Your task to perform on an android device: turn on the 12-hour format for clock Image 0: 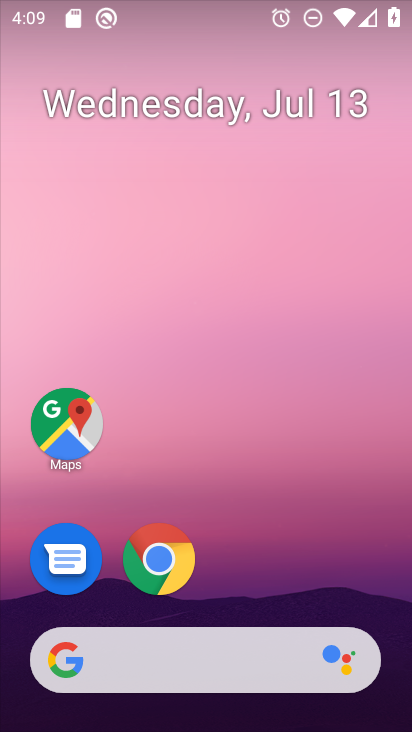
Step 0: drag from (335, 575) to (336, 106)
Your task to perform on an android device: turn on the 12-hour format for clock Image 1: 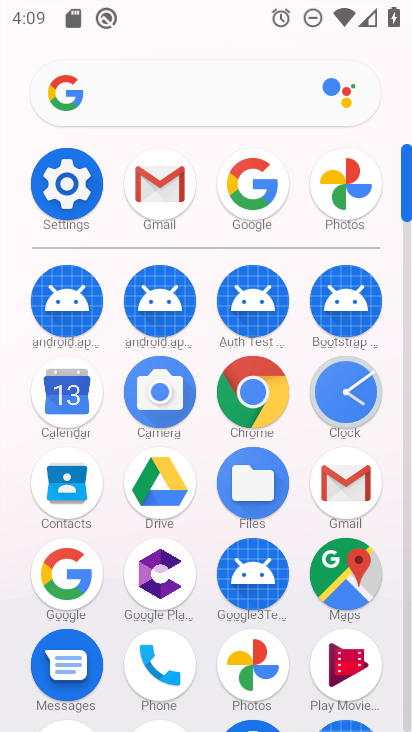
Step 1: click (351, 383)
Your task to perform on an android device: turn on the 12-hour format for clock Image 2: 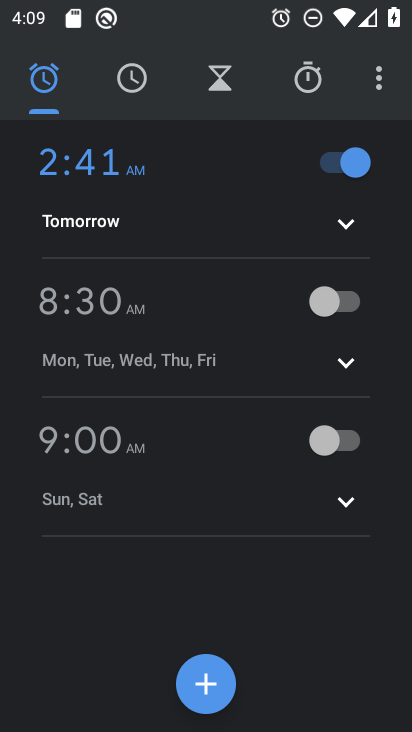
Step 2: click (382, 91)
Your task to perform on an android device: turn on the 12-hour format for clock Image 3: 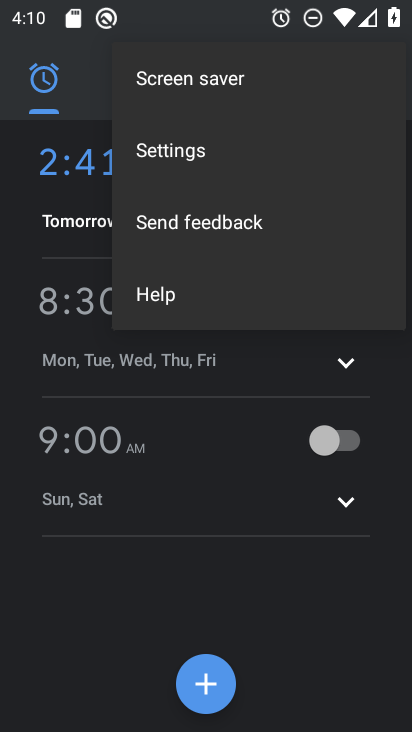
Step 3: click (284, 155)
Your task to perform on an android device: turn on the 12-hour format for clock Image 4: 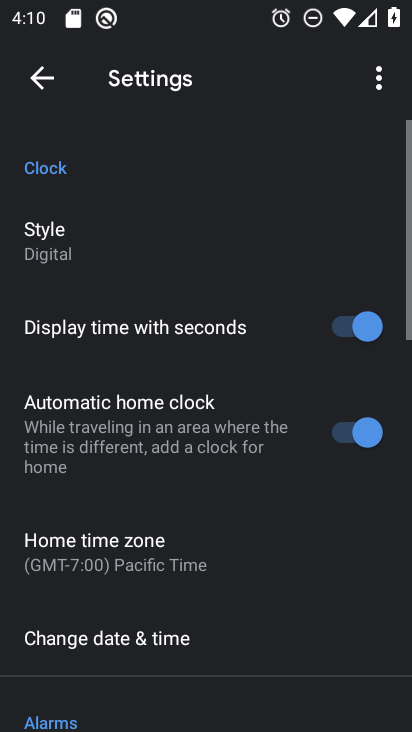
Step 4: drag from (285, 393) to (281, 303)
Your task to perform on an android device: turn on the 12-hour format for clock Image 5: 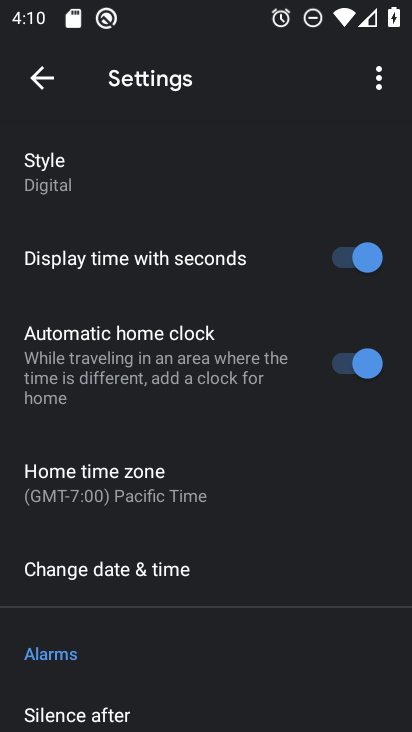
Step 5: drag from (268, 401) to (269, 325)
Your task to perform on an android device: turn on the 12-hour format for clock Image 6: 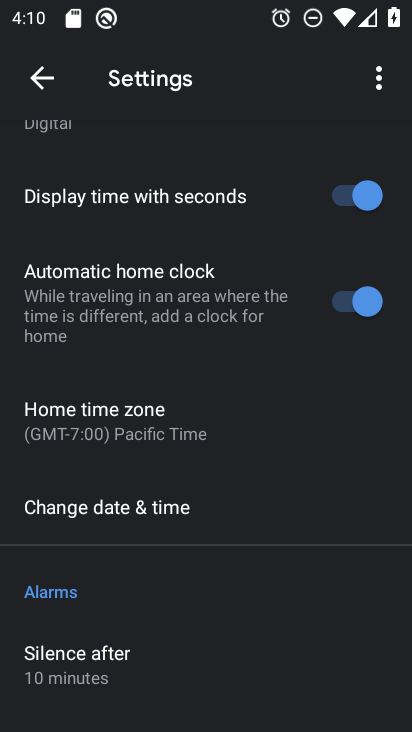
Step 6: drag from (273, 408) to (272, 323)
Your task to perform on an android device: turn on the 12-hour format for clock Image 7: 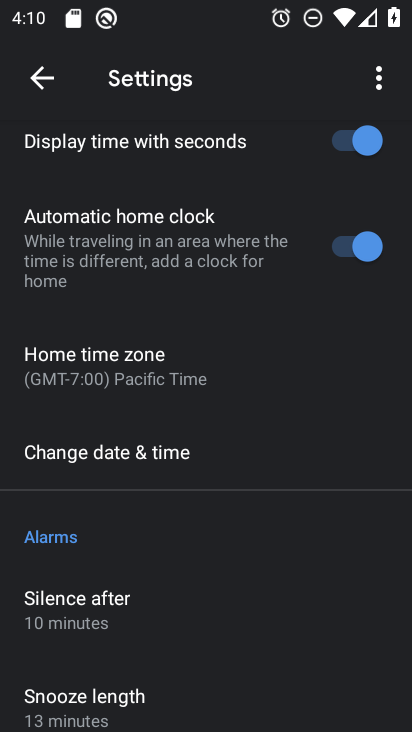
Step 7: drag from (281, 431) to (284, 302)
Your task to perform on an android device: turn on the 12-hour format for clock Image 8: 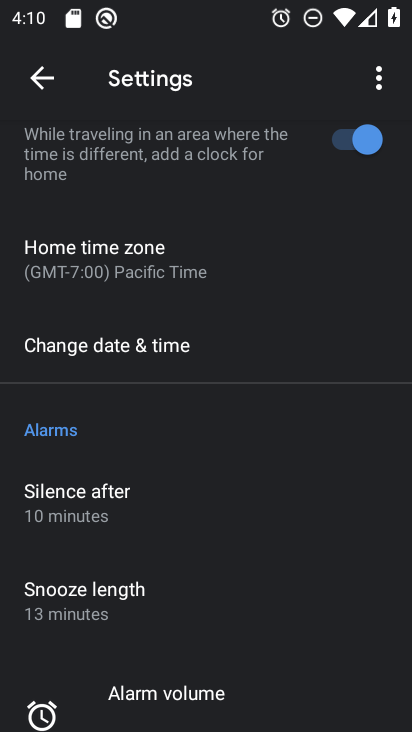
Step 8: drag from (281, 418) to (281, 319)
Your task to perform on an android device: turn on the 12-hour format for clock Image 9: 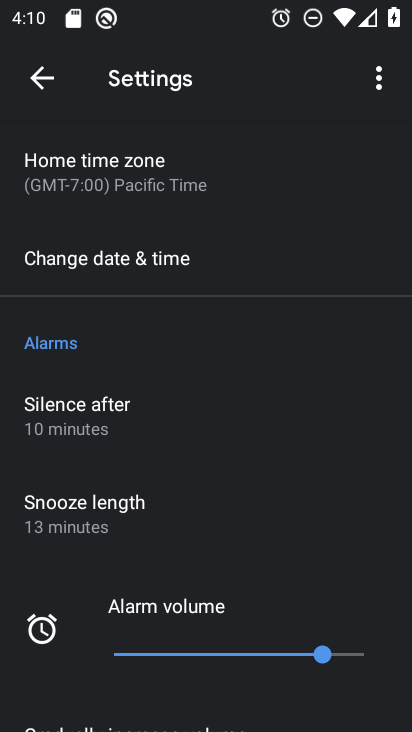
Step 9: click (221, 276)
Your task to perform on an android device: turn on the 12-hour format for clock Image 10: 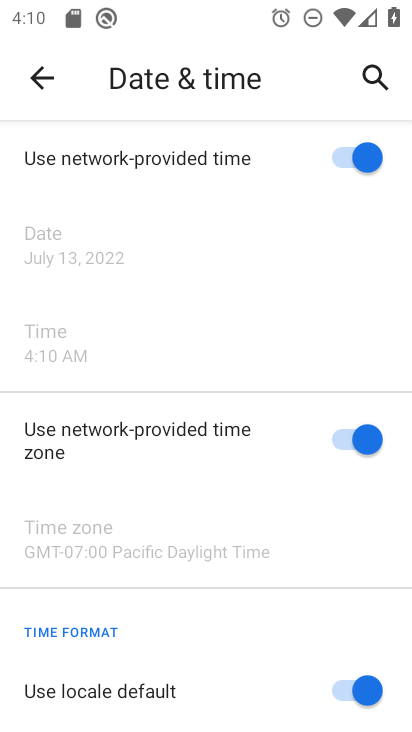
Step 10: task complete